Your task to perform on an android device: toggle wifi Image 0: 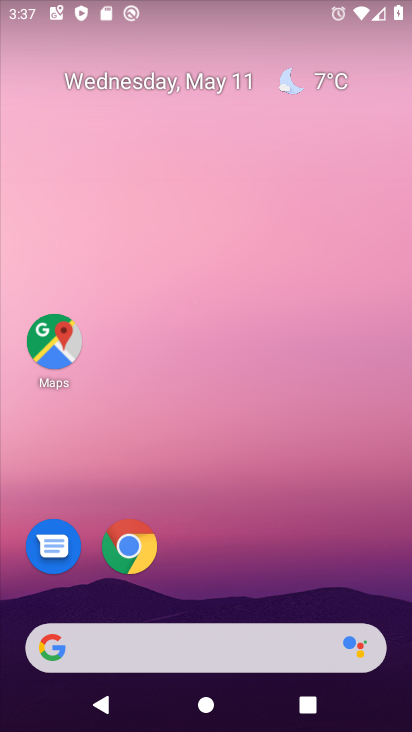
Step 0: drag from (301, 609) to (190, 12)
Your task to perform on an android device: toggle wifi Image 1: 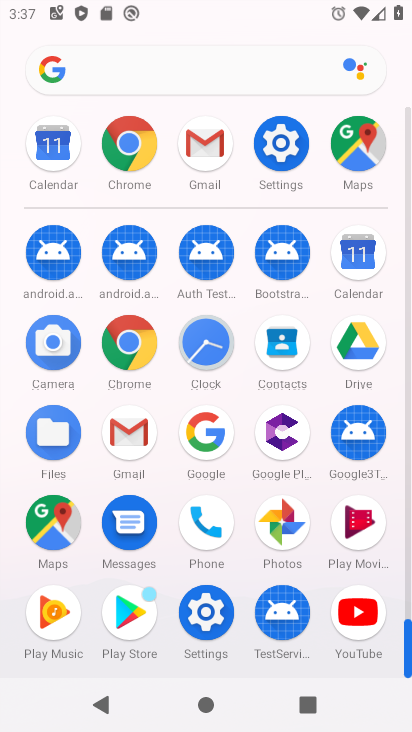
Step 1: click (297, 145)
Your task to perform on an android device: toggle wifi Image 2: 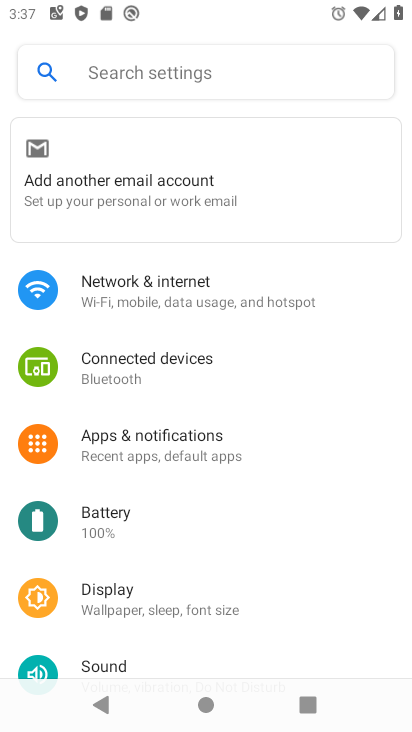
Step 2: click (216, 293)
Your task to perform on an android device: toggle wifi Image 3: 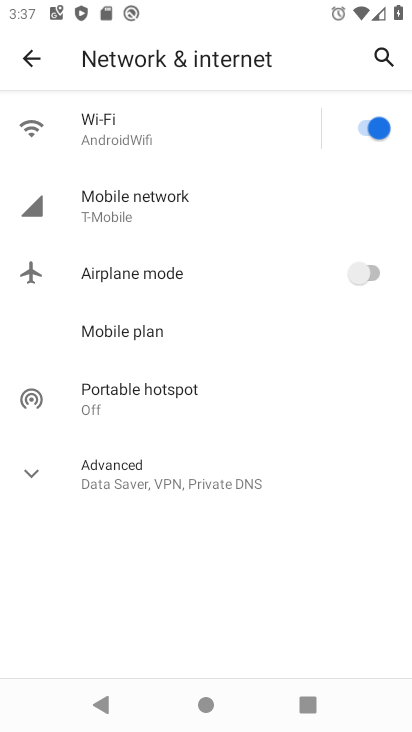
Step 3: click (364, 132)
Your task to perform on an android device: toggle wifi Image 4: 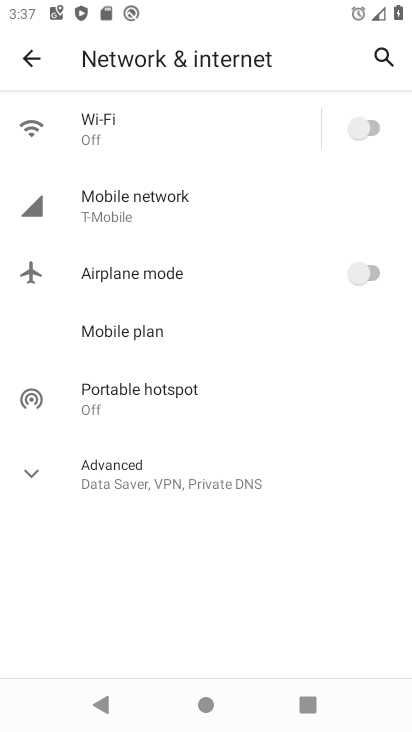
Step 4: task complete